Your task to perform on an android device: Go to Reddit.com Image 0: 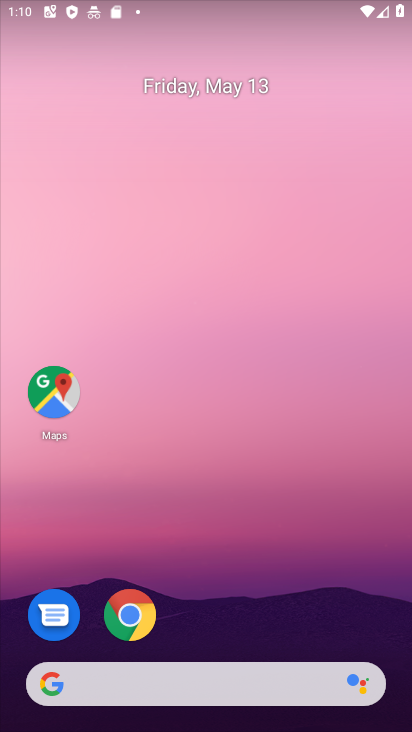
Step 0: click (118, 608)
Your task to perform on an android device: Go to Reddit.com Image 1: 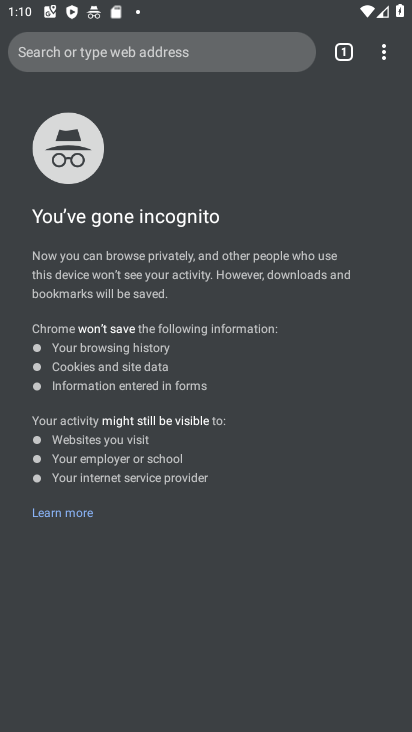
Step 1: click (335, 58)
Your task to perform on an android device: Go to Reddit.com Image 2: 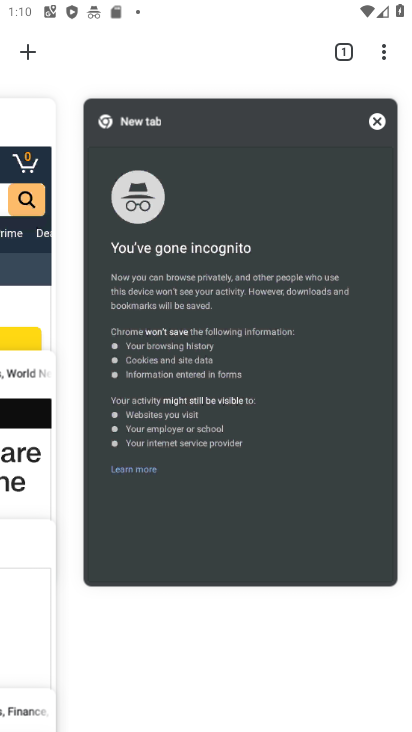
Step 2: drag from (80, 234) to (328, 260)
Your task to perform on an android device: Go to Reddit.com Image 3: 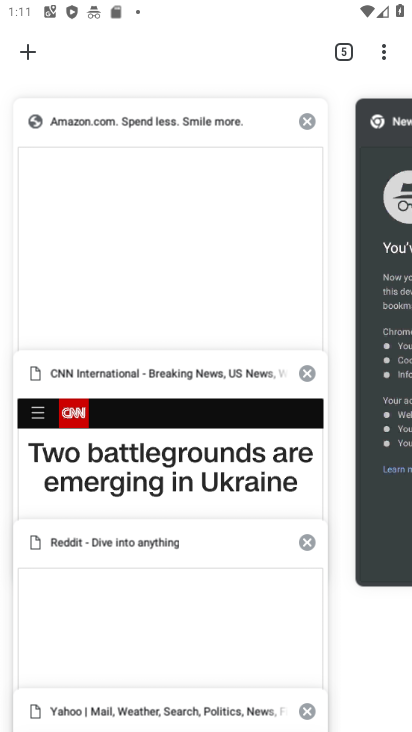
Step 3: drag from (208, 248) to (406, 264)
Your task to perform on an android device: Go to Reddit.com Image 4: 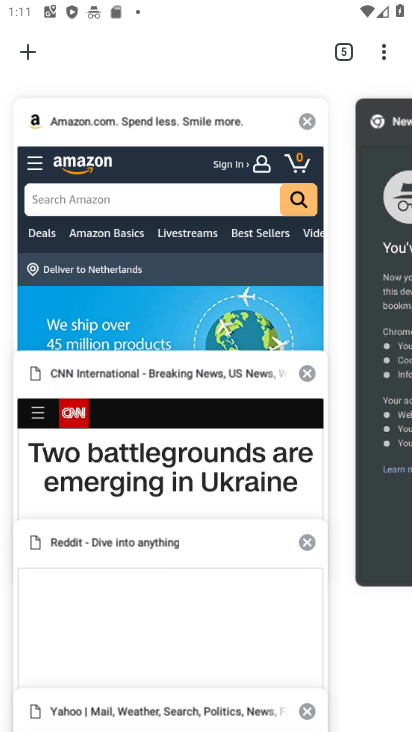
Step 4: click (25, 39)
Your task to perform on an android device: Go to Reddit.com Image 5: 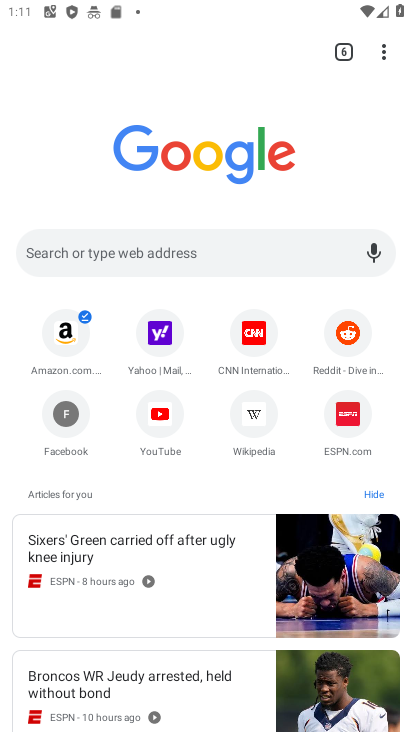
Step 5: click (336, 333)
Your task to perform on an android device: Go to Reddit.com Image 6: 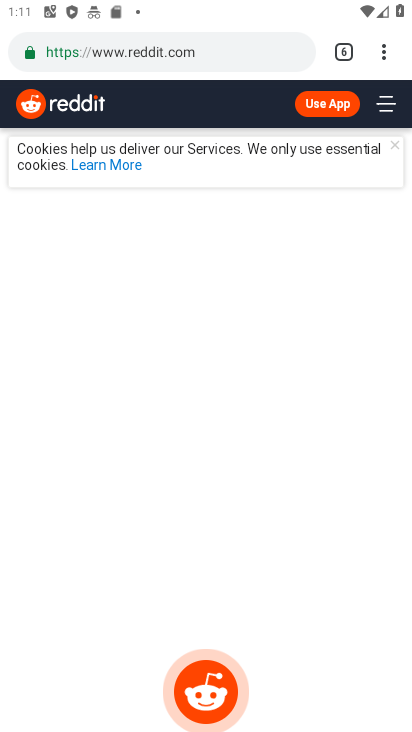
Step 6: task complete